Your task to perform on an android device: Open network settings Image 0: 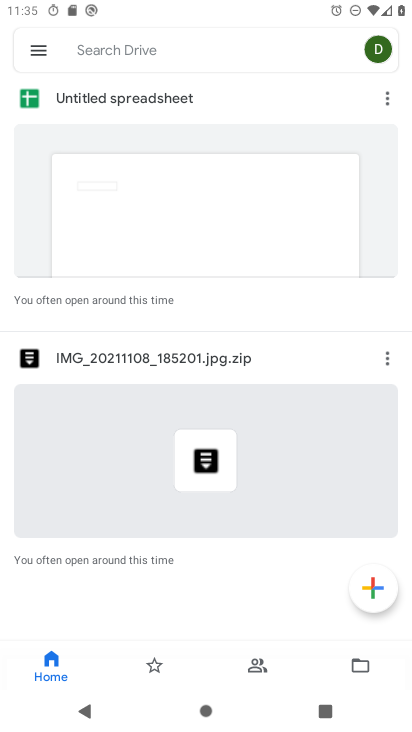
Step 0: press back button
Your task to perform on an android device: Open network settings Image 1: 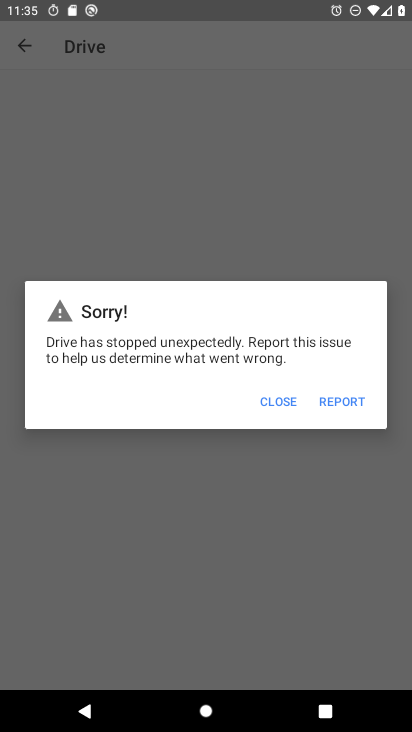
Step 1: press back button
Your task to perform on an android device: Open network settings Image 2: 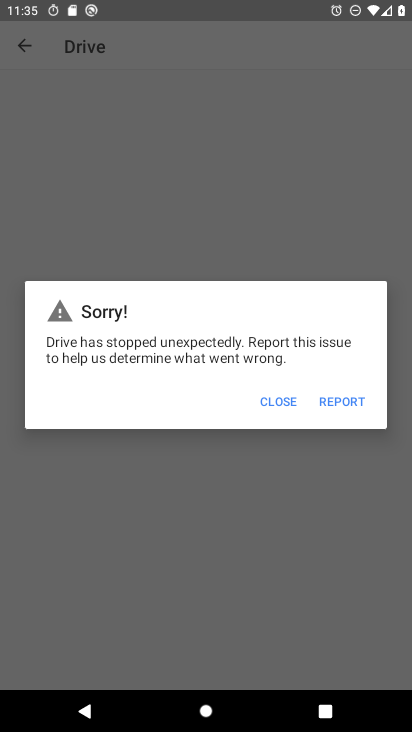
Step 2: press home button
Your task to perform on an android device: Open network settings Image 3: 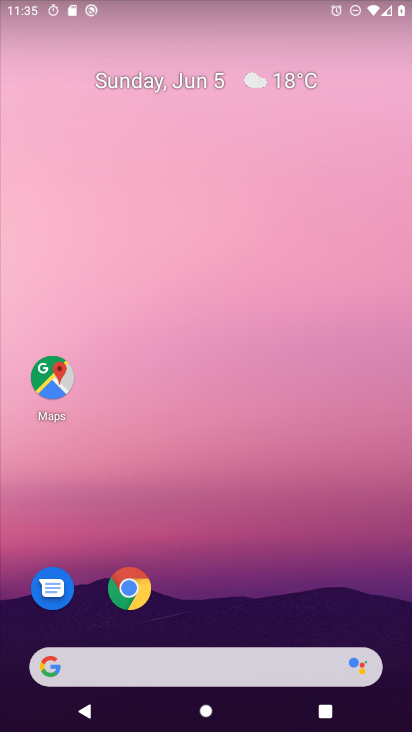
Step 3: drag from (339, 586) to (339, 169)
Your task to perform on an android device: Open network settings Image 4: 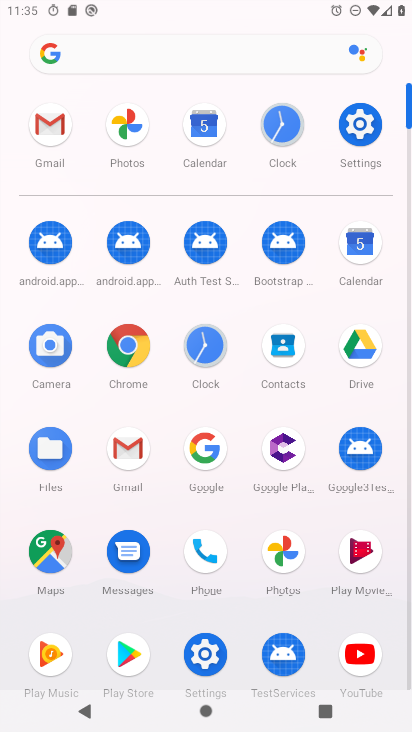
Step 4: click (361, 142)
Your task to perform on an android device: Open network settings Image 5: 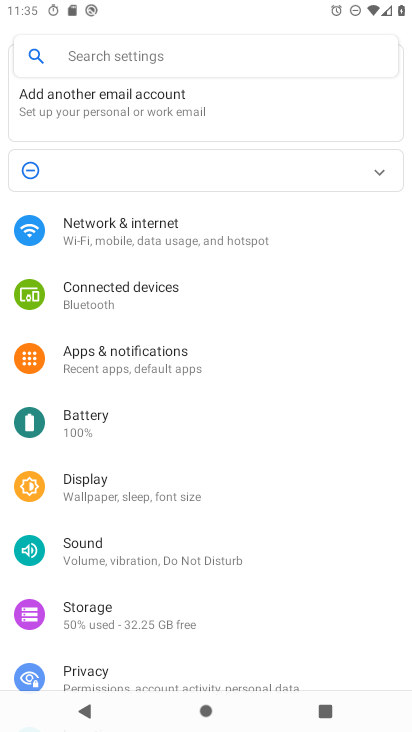
Step 5: drag from (318, 476) to (326, 248)
Your task to perform on an android device: Open network settings Image 6: 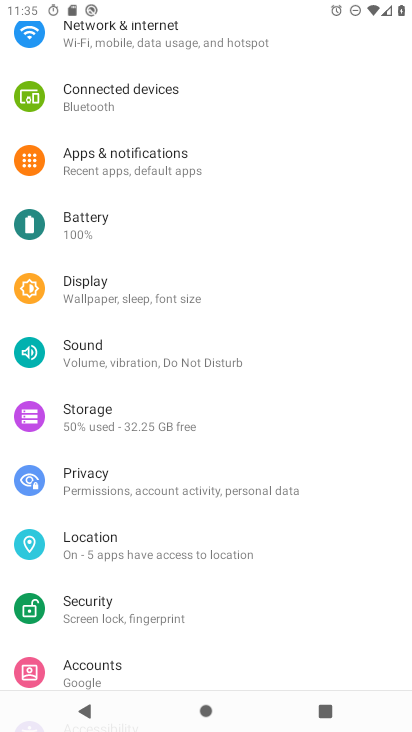
Step 6: drag from (328, 512) to (350, 317)
Your task to perform on an android device: Open network settings Image 7: 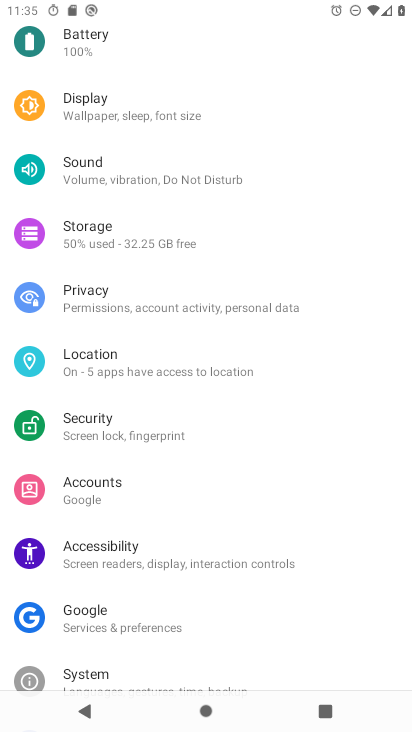
Step 7: drag from (336, 192) to (339, 318)
Your task to perform on an android device: Open network settings Image 8: 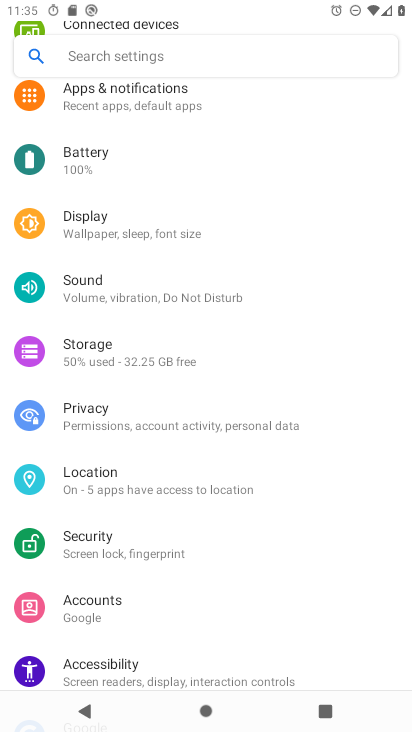
Step 8: drag from (335, 178) to (357, 354)
Your task to perform on an android device: Open network settings Image 9: 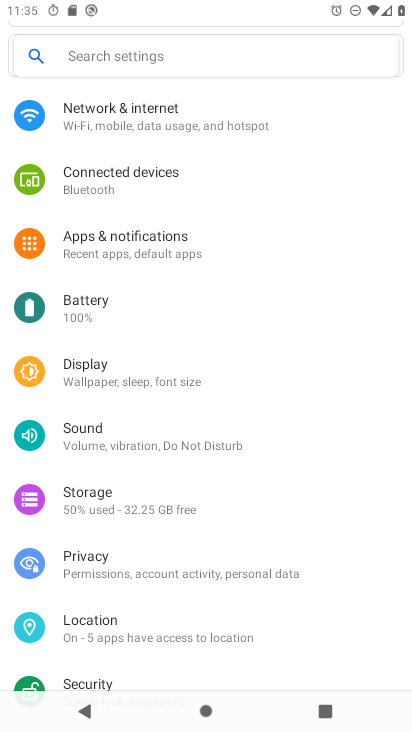
Step 9: drag from (348, 188) to (343, 333)
Your task to perform on an android device: Open network settings Image 10: 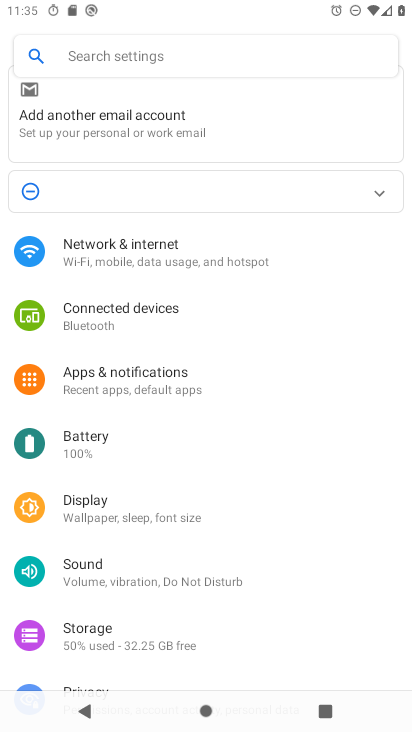
Step 10: click (199, 253)
Your task to perform on an android device: Open network settings Image 11: 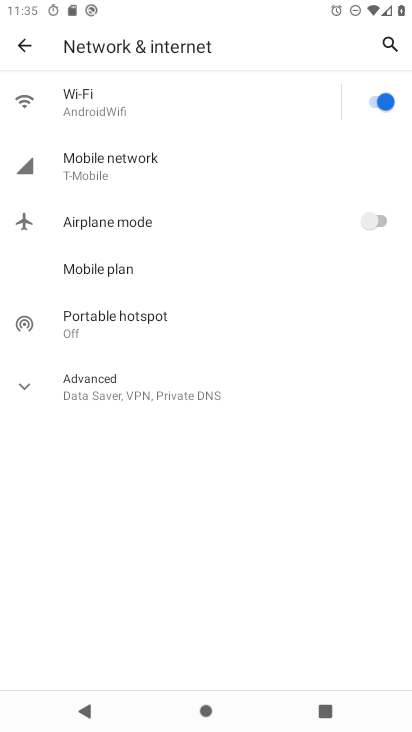
Step 11: task complete